Your task to perform on an android device: clear all cookies in the chrome app Image 0: 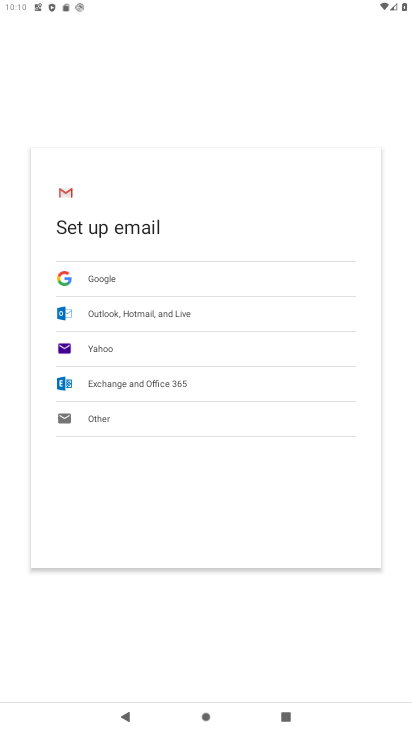
Step 0: press home button
Your task to perform on an android device: clear all cookies in the chrome app Image 1: 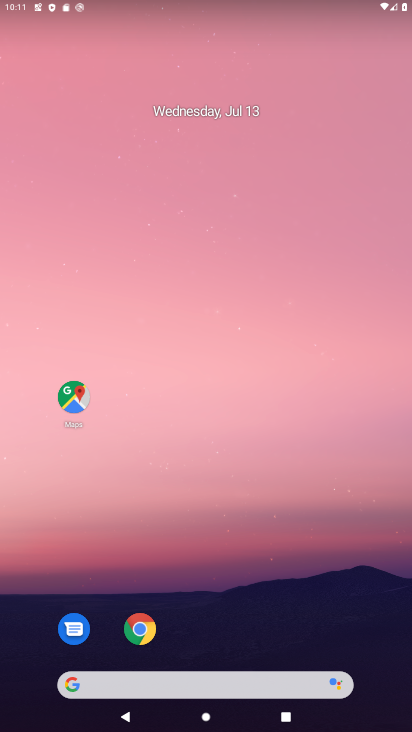
Step 1: click (136, 628)
Your task to perform on an android device: clear all cookies in the chrome app Image 2: 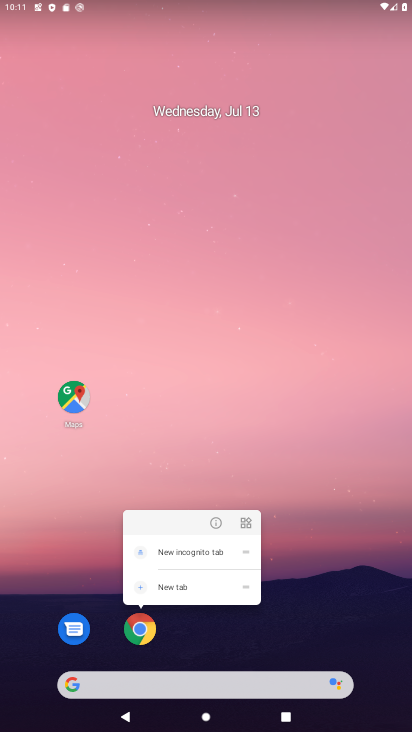
Step 2: click (139, 621)
Your task to perform on an android device: clear all cookies in the chrome app Image 3: 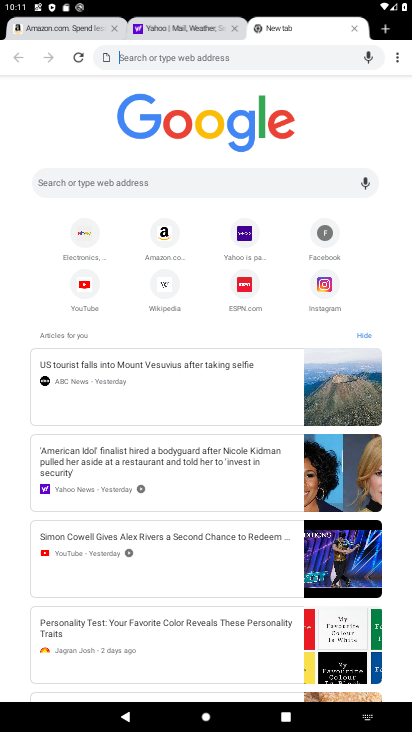
Step 3: click (401, 59)
Your task to perform on an android device: clear all cookies in the chrome app Image 4: 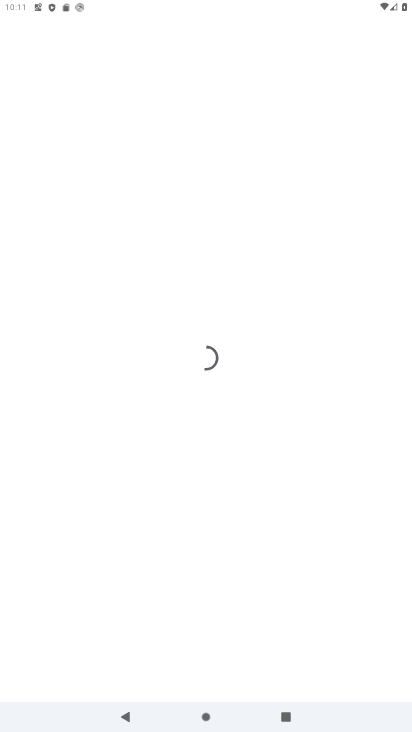
Step 4: press back button
Your task to perform on an android device: clear all cookies in the chrome app Image 5: 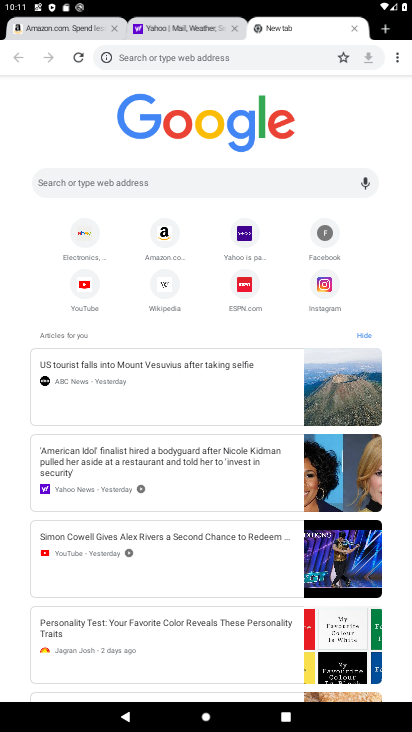
Step 5: click (393, 56)
Your task to perform on an android device: clear all cookies in the chrome app Image 6: 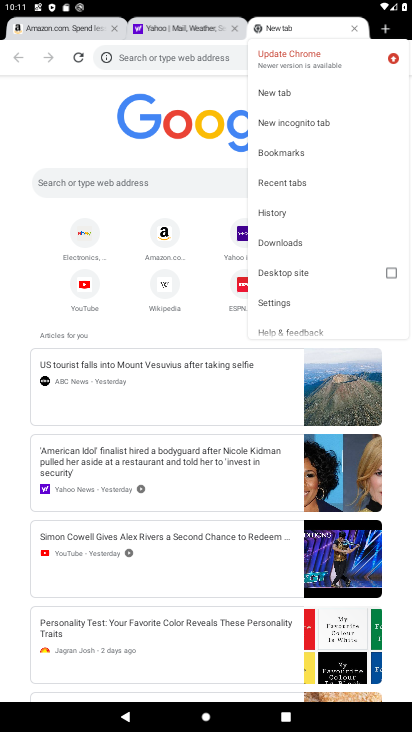
Step 6: click (288, 213)
Your task to perform on an android device: clear all cookies in the chrome app Image 7: 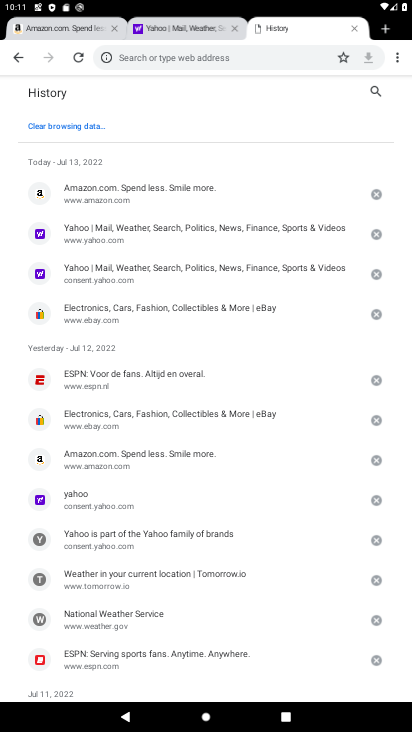
Step 7: click (65, 126)
Your task to perform on an android device: clear all cookies in the chrome app Image 8: 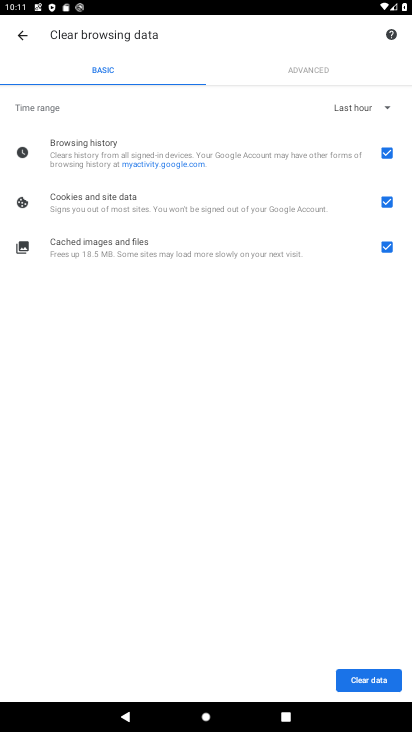
Step 8: click (388, 147)
Your task to perform on an android device: clear all cookies in the chrome app Image 9: 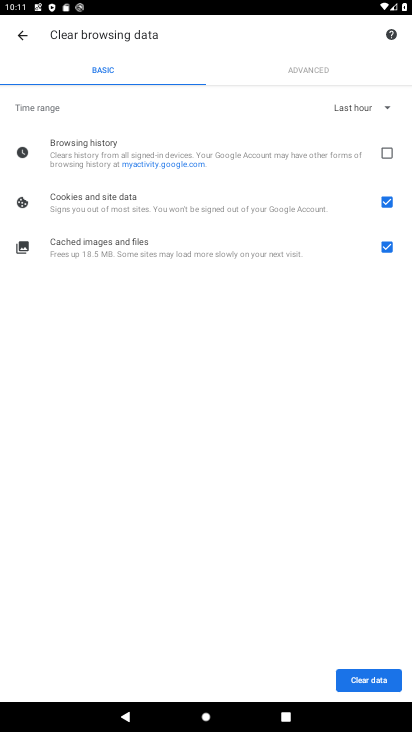
Step 9: click (389, 242)
Your task to perform on an android device: clear all cookies in the chrome app Image 10: 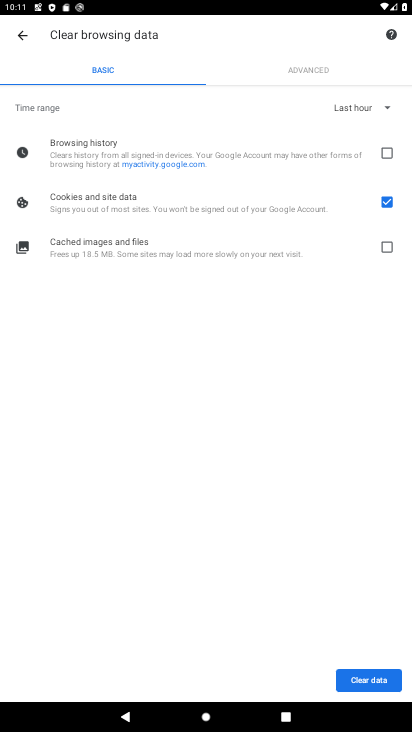
Step 10: click (368, 675)
Your task to perform on an android device: clear all cookies in the chrome app Image 11: 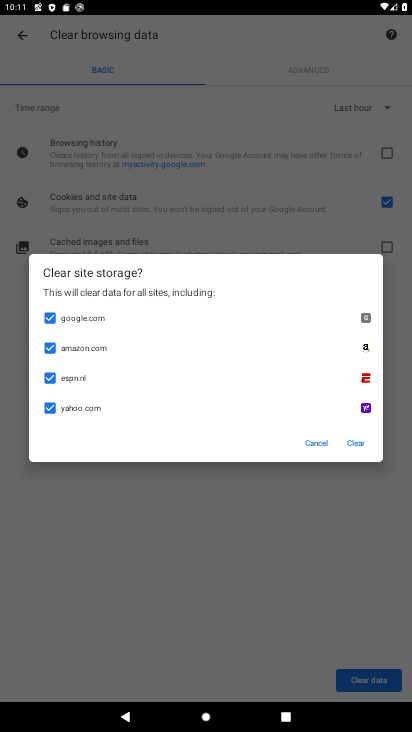
Step 11: task complete